Your task to perform on an android device: Open the map Image 0: 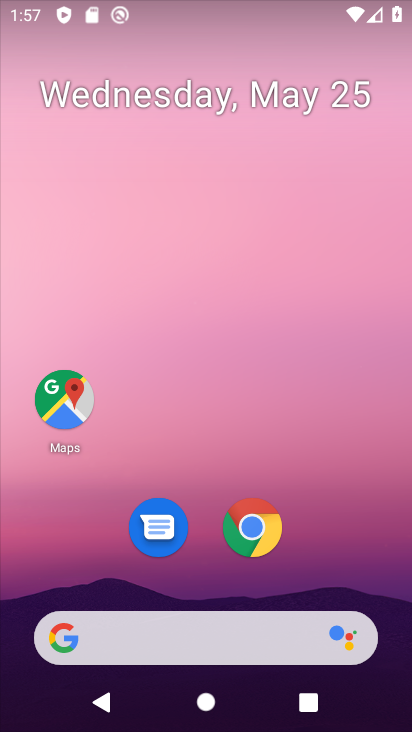
Step 0: click (51, 388)
Your task to perform on an android device: Open the map Image 1: 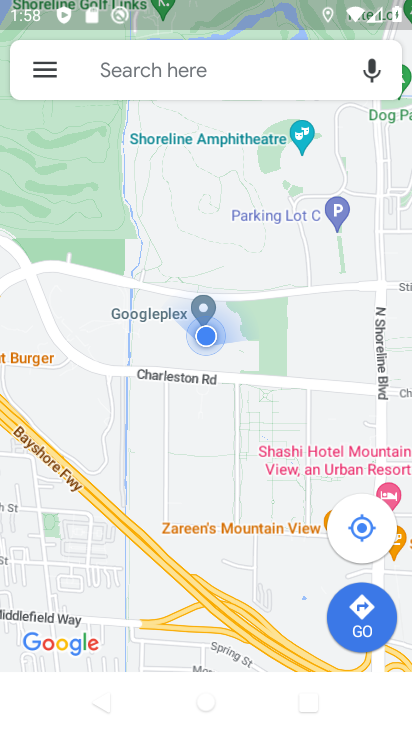
Step 1: task complete